Your task to perform on an android device: add a label to a message in the gmail app Image 0: 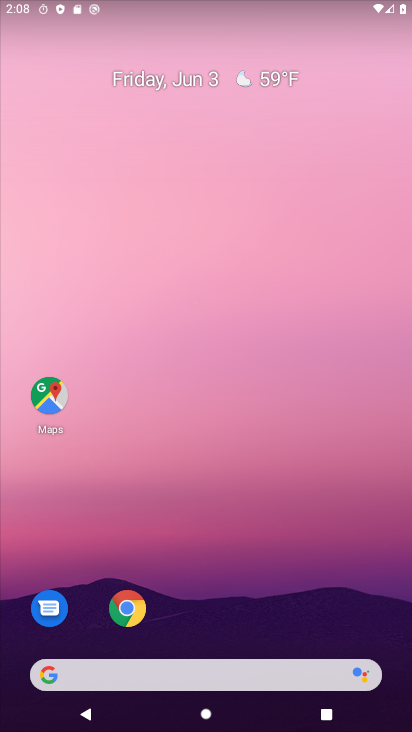
Step 0: drag from (176, 669) to (190, 20)
Your task to perform on an android device: add a label to a message in the gmail app Image 1: 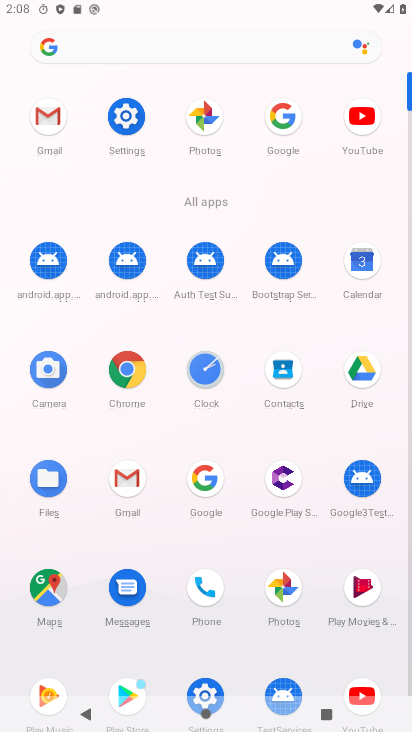
Step 1: click (43, 168)
Your task to perform on an android device: add a label to a message in the gmail app Image 2: 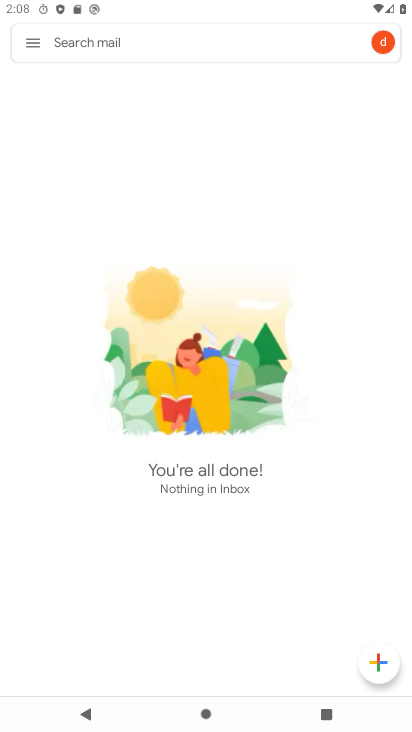
Step 2: click (29, 35)
Your task to perform on an android device: add a label to a message in the gmail app Image 3: 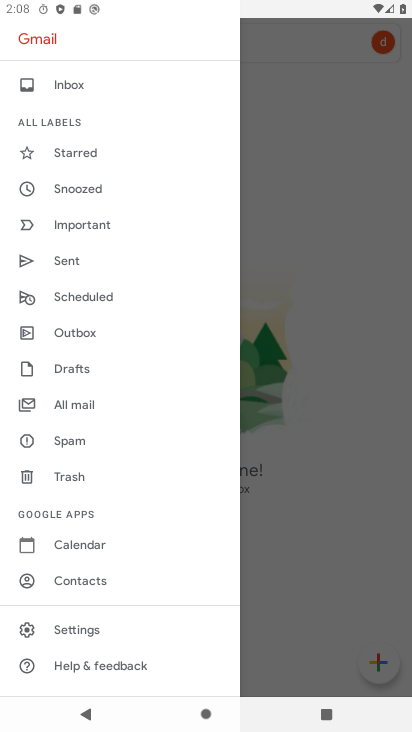
Step 3: click (88, 407)
Your task to perform on an android device: add a label to a message in the gmail app Image 4: 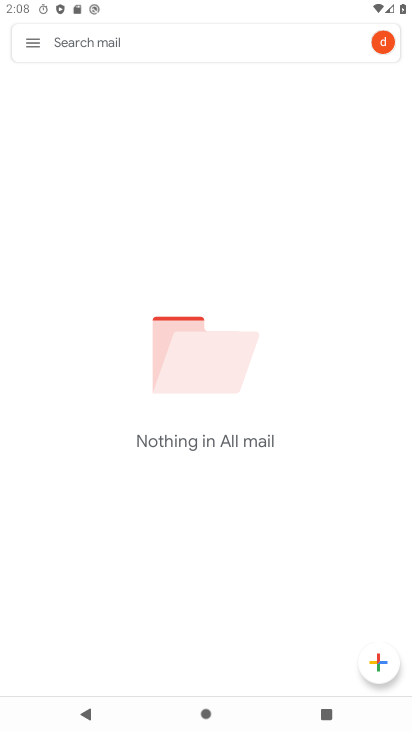
Step 4: task complete